Your task to perform on an android device: Open Amazon Image 0: 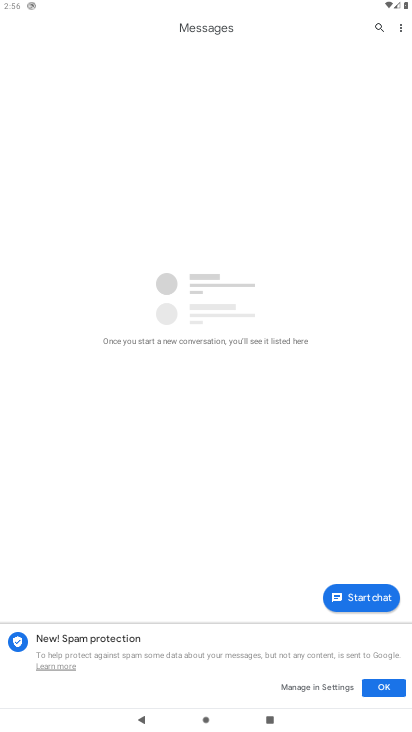
Step 0: press home button
Your task to perform on an android device: Open Amazon Image 1: 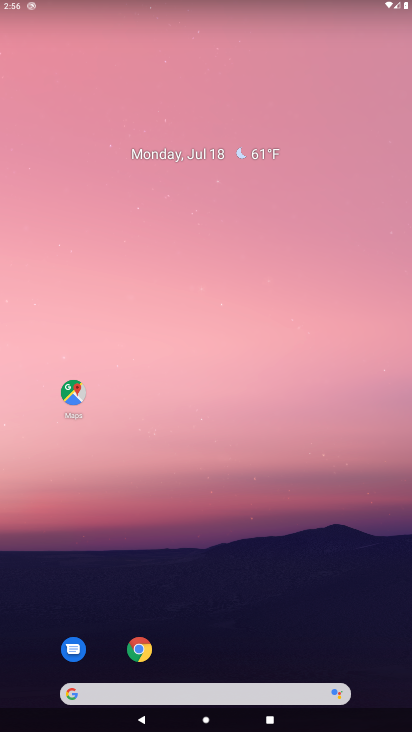
Step 1: click (139, 682)
Your task to perform on an android device: Open Amazon Image 2: 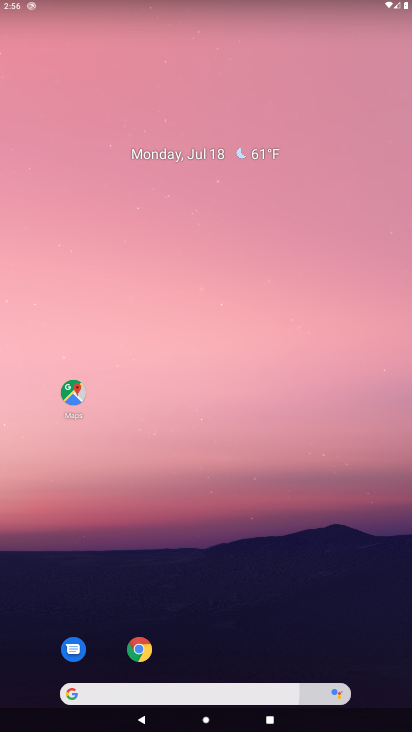
Step 2: click (129, 700)
Your task to perform on an android device: Open Amazon Image 3: 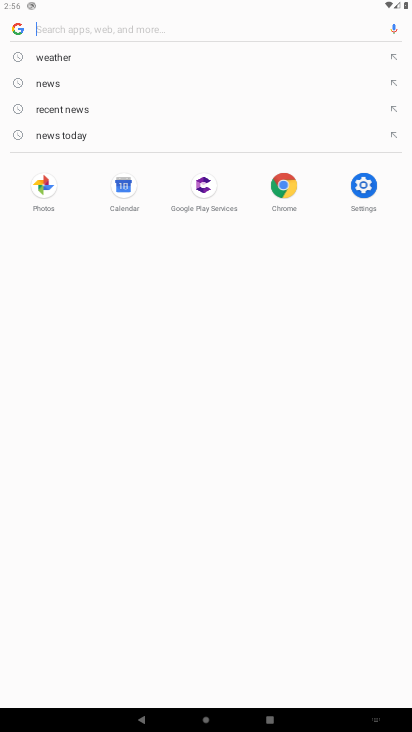
Step 3: click (82, 17)
Your task to perform on an android device: Open Amazon Image 4: 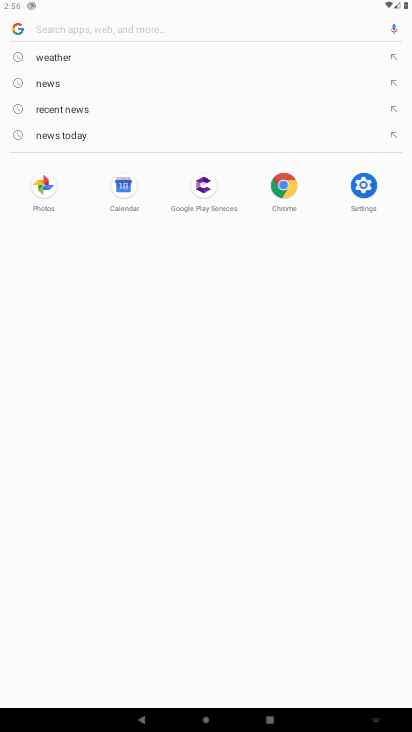
Step 4: type "Amazon"
Your task to perform on an android device: Open Amazon Image 5: 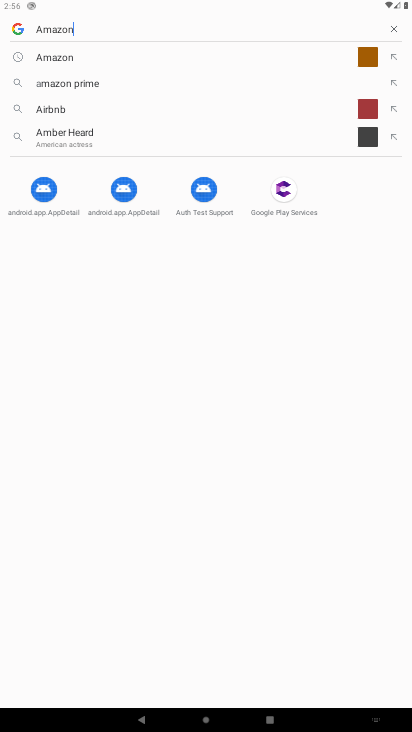
Step 5: type ""
Your task to perform on an android device: Open Amazon Image 6: 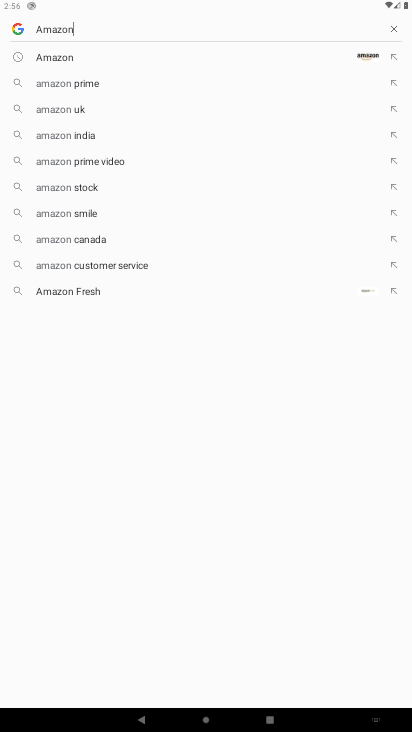
Step 6: click (48, 53)
Your task to perform on an android device: Open Amazon Image 7: 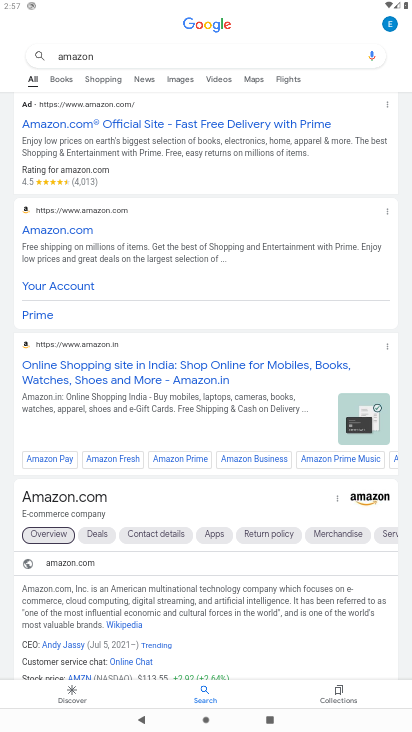
Step 7: task complete